Your task to perform on an android device: Is it going to rain tomorrow? Image 0: 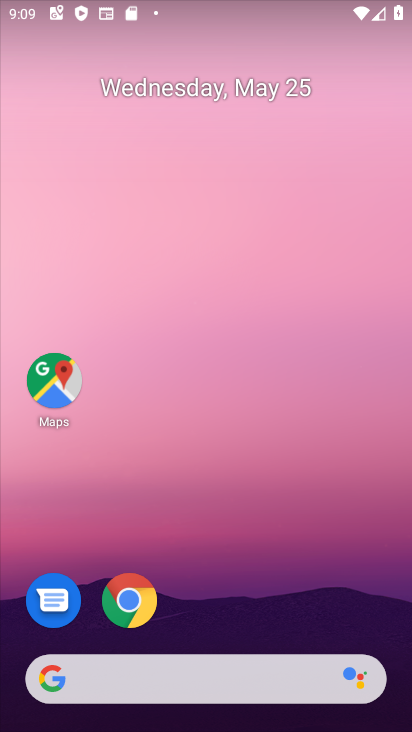
Step 0: drag from (214, 562) to (211, 24)
Your task to perform on an android device: Is it going to rain tomorrow? Image 1: 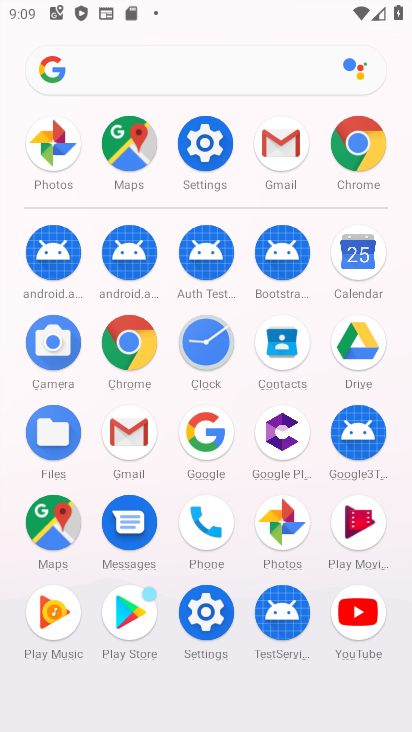
Step 1: drag from (7, 539) to (7, 185)
Your task to perform on an android device: Is it going to rain tomorrow? Image 2: 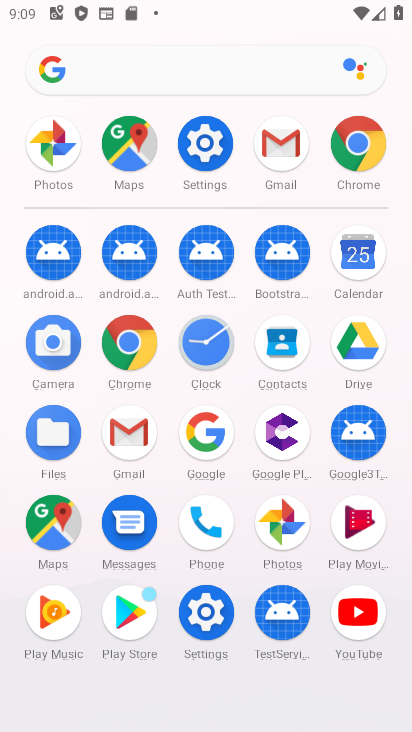
Step 2: click (122, 344)
Your task to perform on an android device: Is it going to rain tomorrow? Image 3: 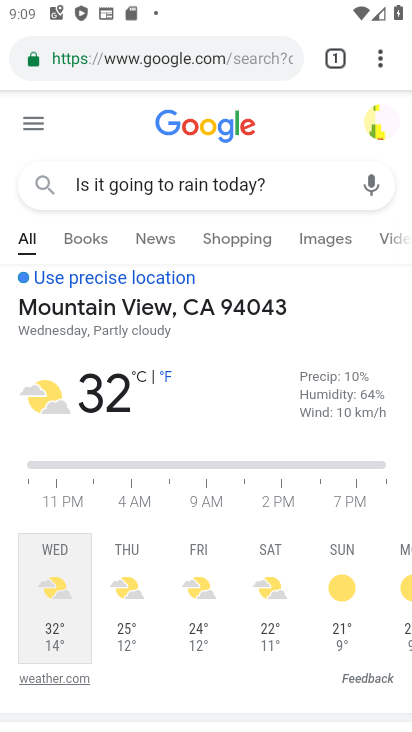
Step 3: click (173, 56)
Your task to perform on an android device: Is it going to rain tomorrow? Image 4: 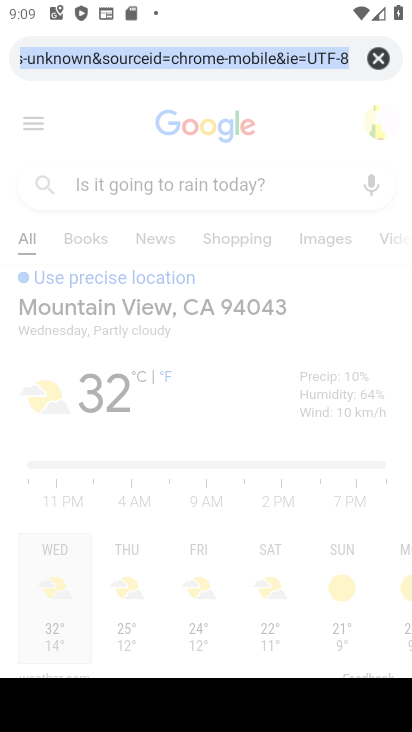
Step 4: click (372, 61)
Your task to perform on an android device: Is it going to rain tomorrow? Image 5: 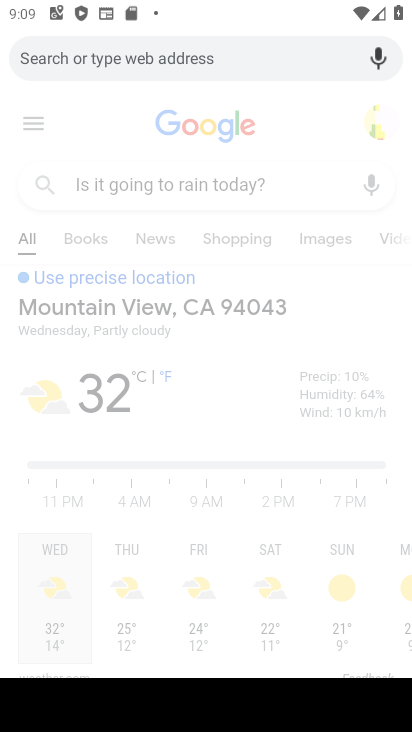
Step 5: type "Is it going to rain tomorrow?"
Your task to perform on an android device: Is it going to rain tomorrow? Image 6: 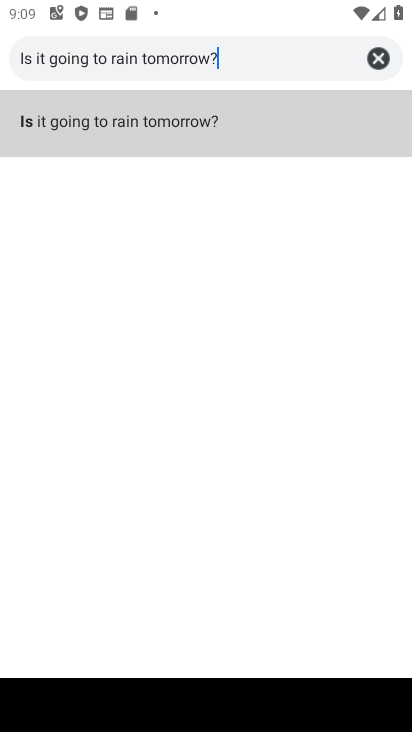
Step 6: type ""
Your task to perform on an android device: Is it going to rain tomorrow? Image 7: 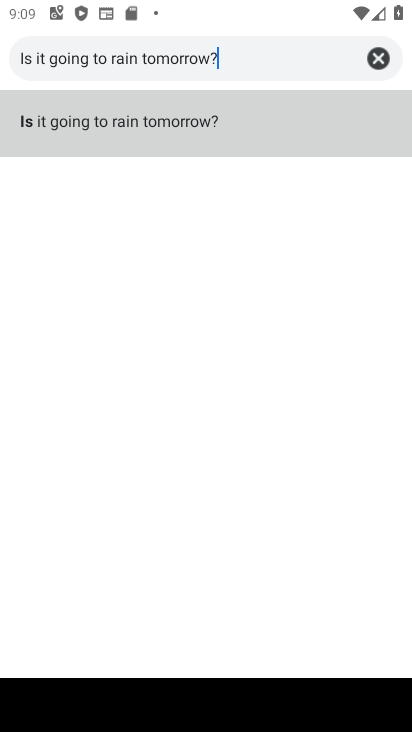
Step 7: click (204, 116)
Your task to perform on an android device: Is it going to rain tomorrow? Image 8: 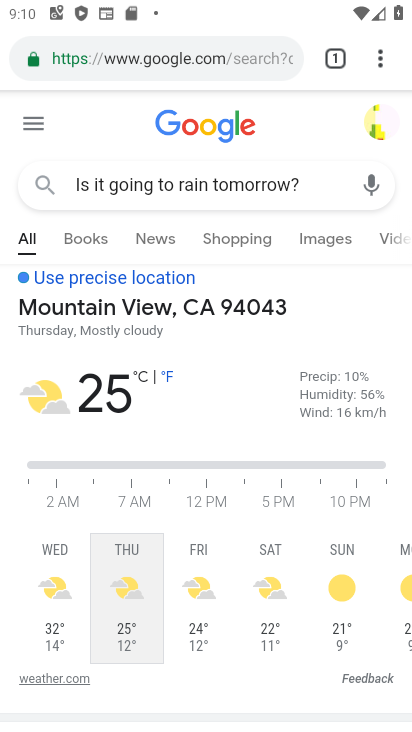
Step 8: task complete